Your task to perform on an android device: turn off data saver in the chrome app Image 0: 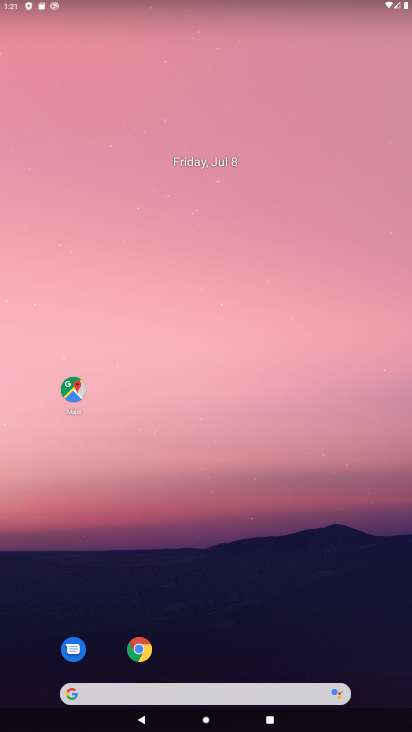
Step 0: drag from (238, 644) to (247, 115)
Your task to perform on an android device: turn off data saver in the chrome app Image 1: 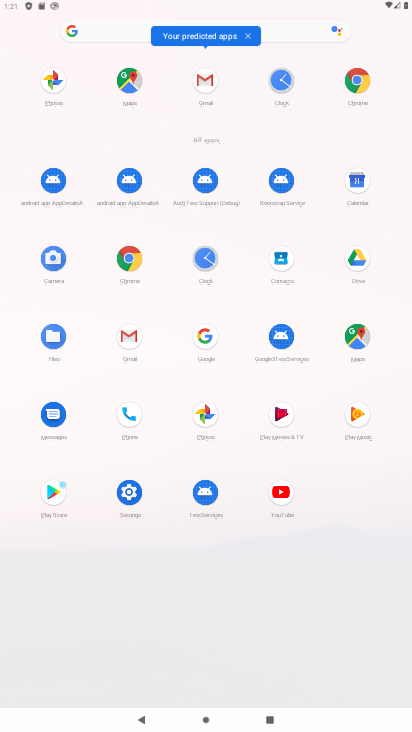
Step 1: click (355, 81)
Your task to perform on an android device: turn off data saver in the chrome app Image 2: 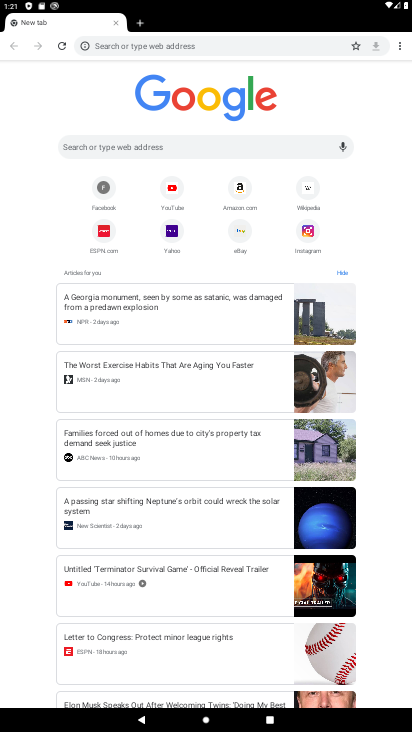
Step 2: click (397, 42)
Your task to perform on an android device: turn off data saver in the chrome app Image 3: 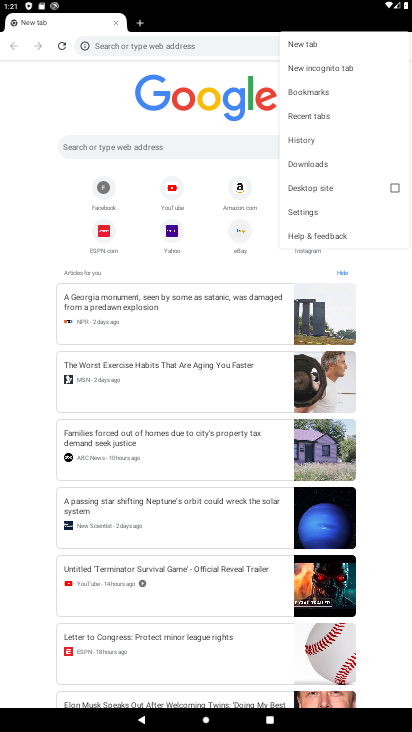
Step 3: click (316, 204)
Your task to perform on an android device: turn off data saver in the chrome app Image 4: 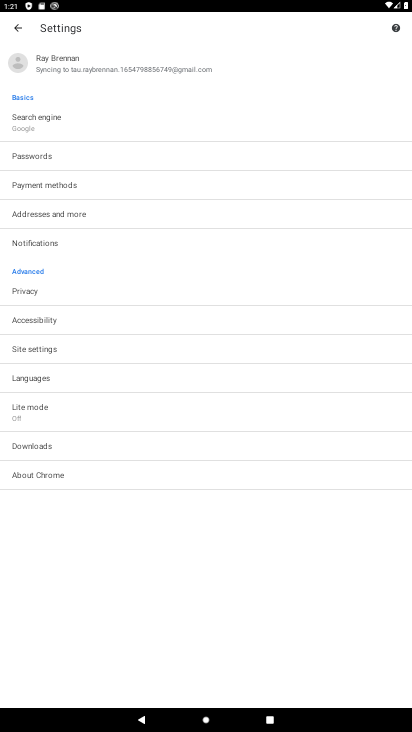
Step 4: click (42, 404)
Your task to perform on an android device: turn off data saver in the chrome app Image 5: 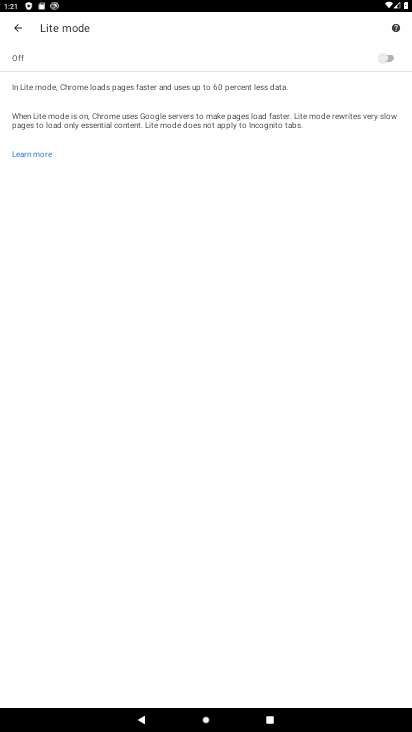
Step 5: task complete